Your task to perform on an android device: open app "Google Keep" (install if not already installed) Image 0: 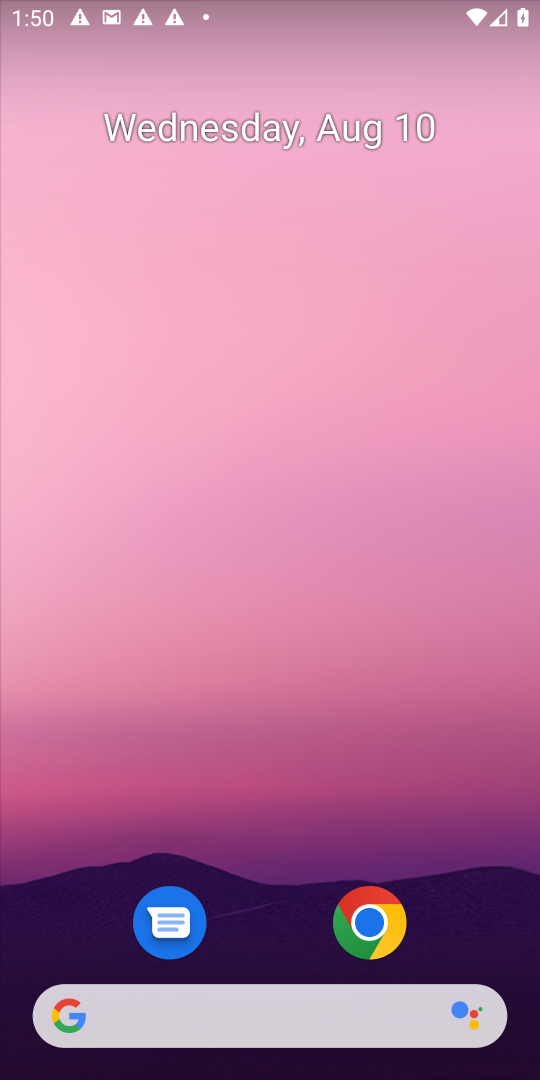
Step 0: drag from (254, 853) to (325, 23)
Your task to perform on an android device: open app "Google Keep" (install if not already installed) Image 1: 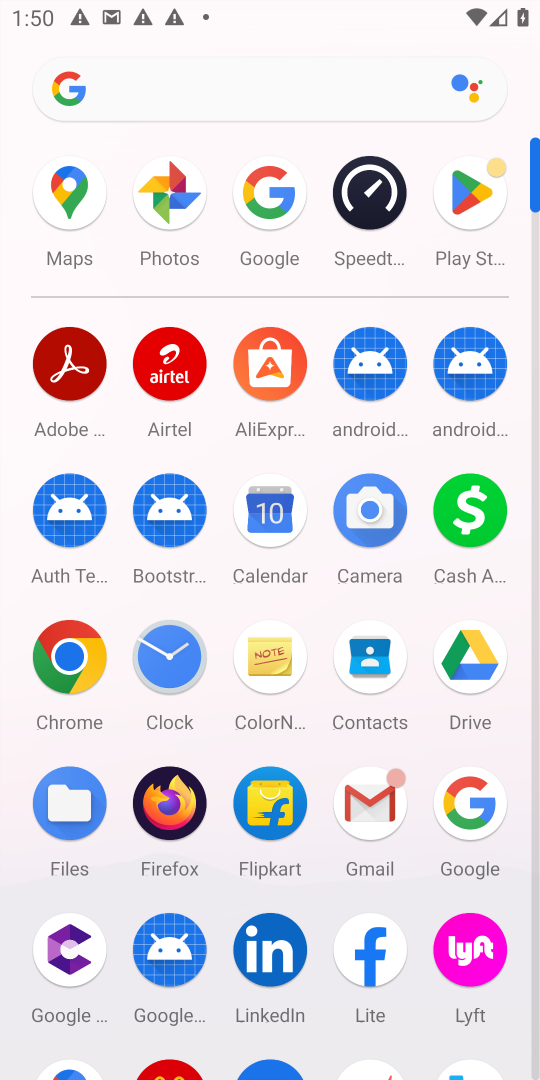
Step 1: click (470, 192)
Your task to perform on an android device: open app "Google Keep" (install if not already installed) Image 2: 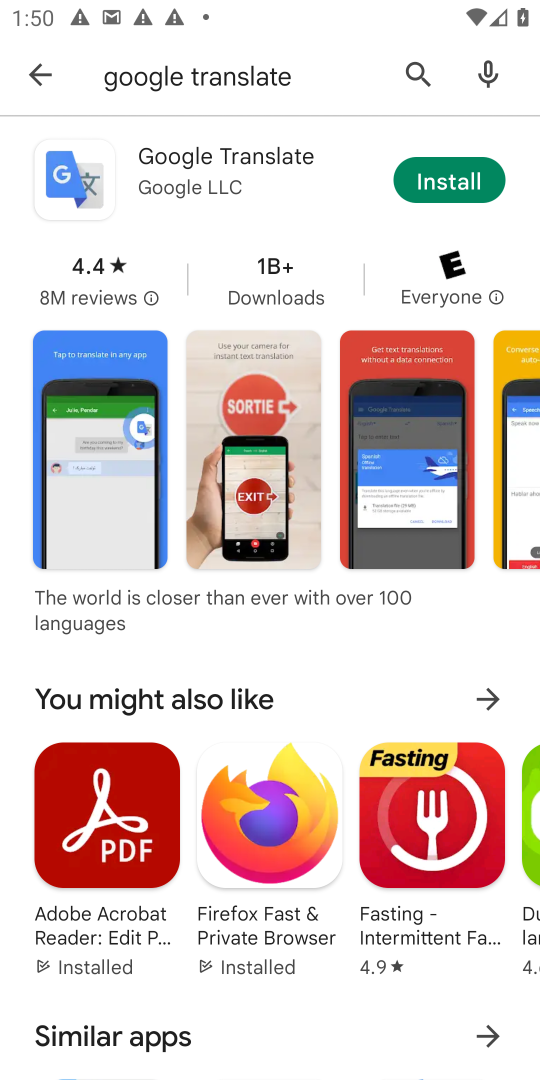
Step 2: click (34, 76)
Your task to perform on an android device: open app "Google Keep" (install if not already installed) Image 3: 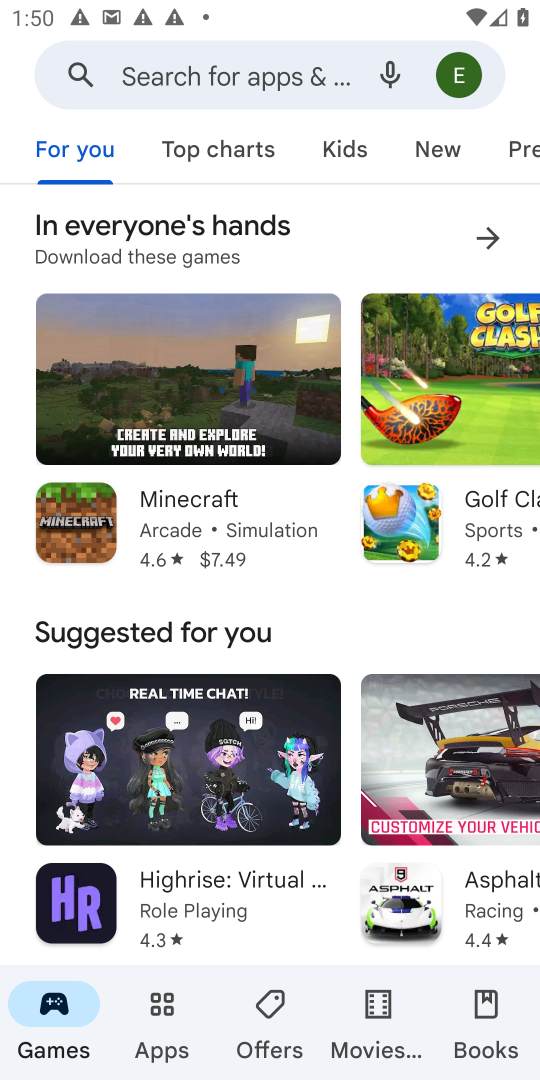
Step 3: click (160, 76)
Your task to perform on an android device: open app "Google Keep" (install if not already installed) Image 4: 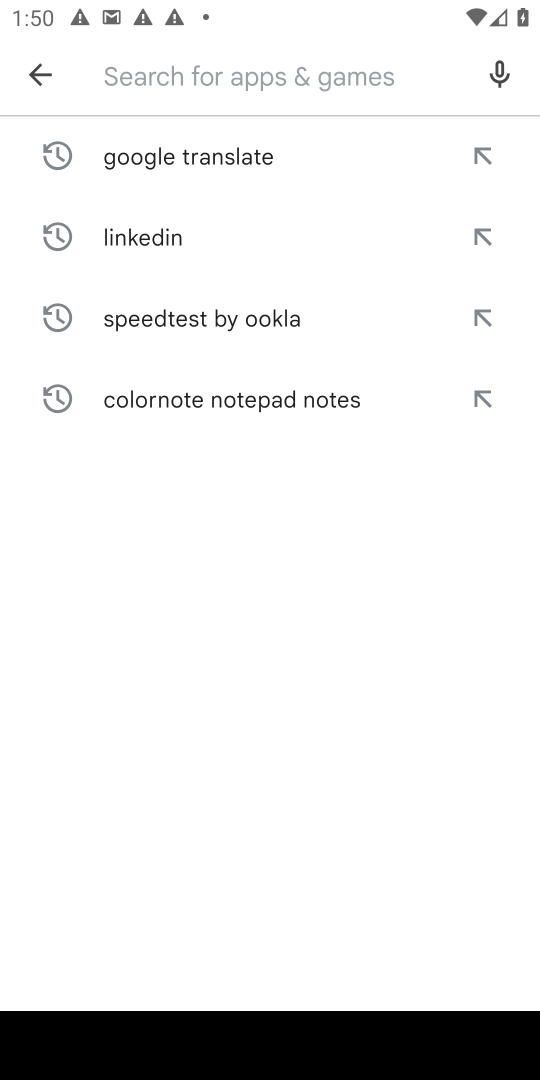
Step 4: type "Google Keep"
Your task to perform on an android device: open app "Google Keep" (install if not already installed) Image 5: 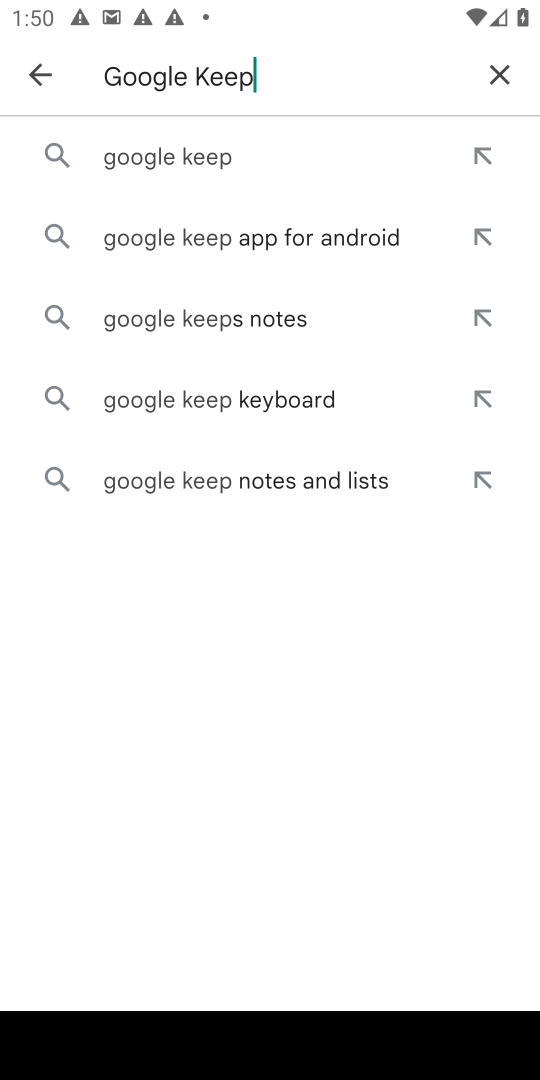
Step 5: click (197, 152)
Your task to perform on an android device: open app "Google Keep" (install if not already installed) Image 6: 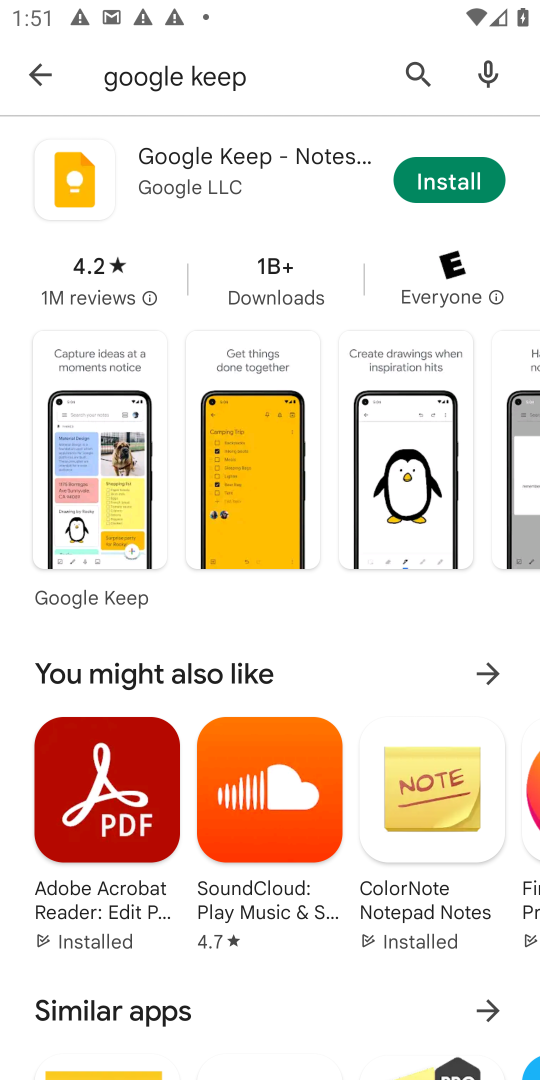
Step 6: click (450, 182)
Your task to perform on an android device: open app "Google Keep" (install if not already installed) Image 7: 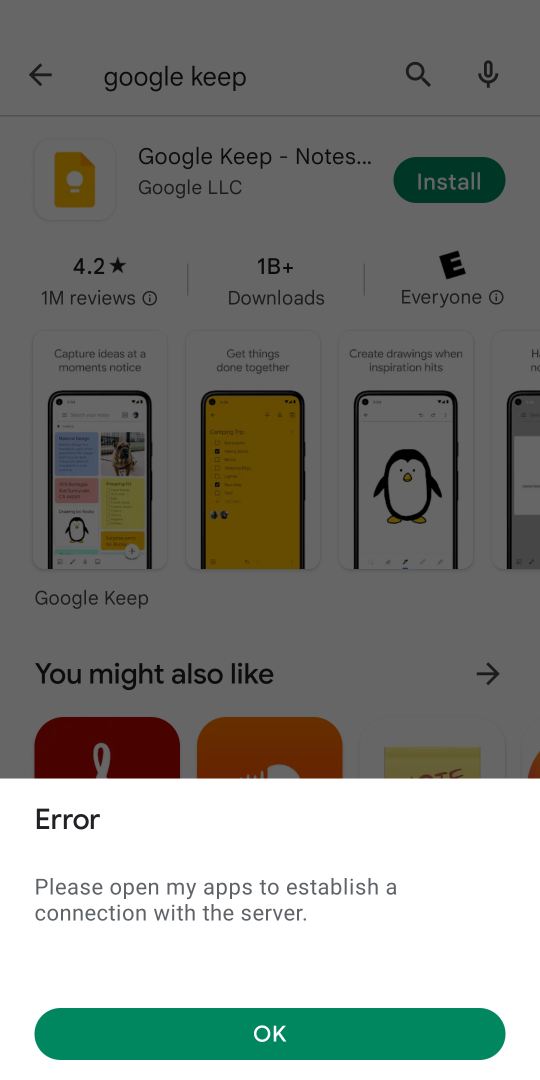
Step 7: click (258, 1044)
Your task to perform on an android device: open app "Google Keep" (install if not already installed) Image 8: 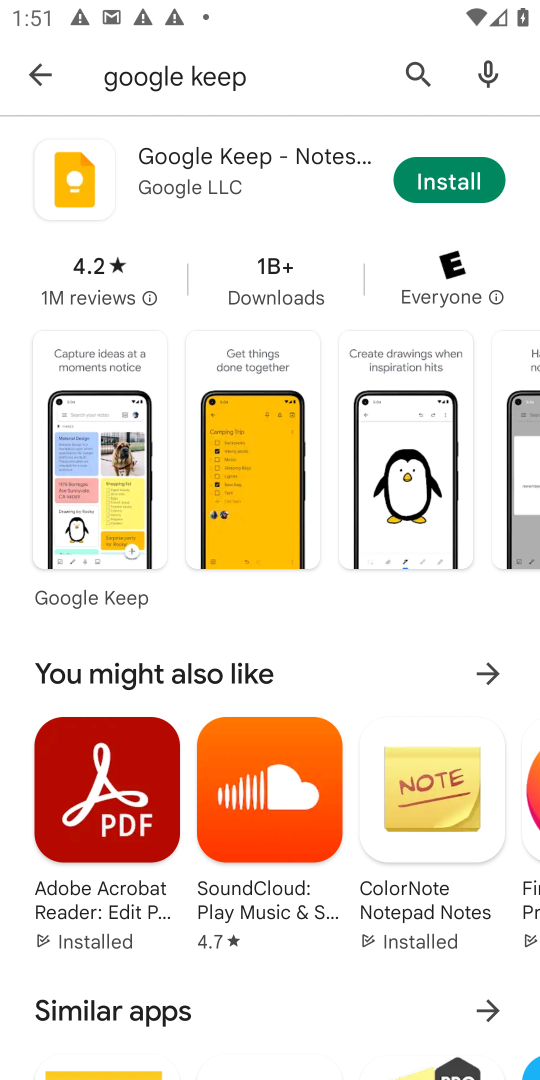
Step 8: task complete